Your task to perform on an android device: delete location history Image 0: 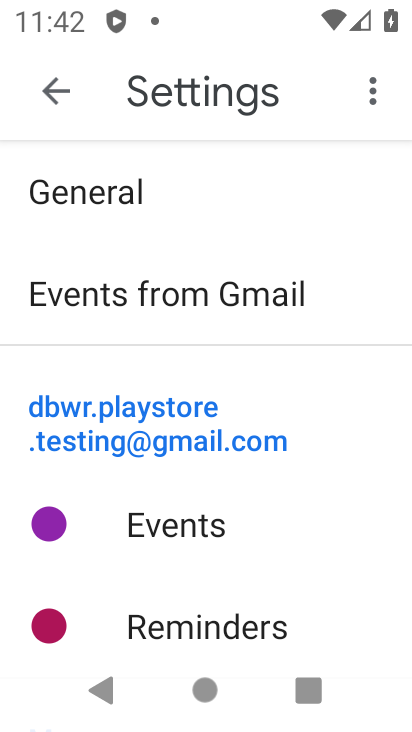
Step 0: press home button
Your task to perform on an android device: delete location history Image 1: 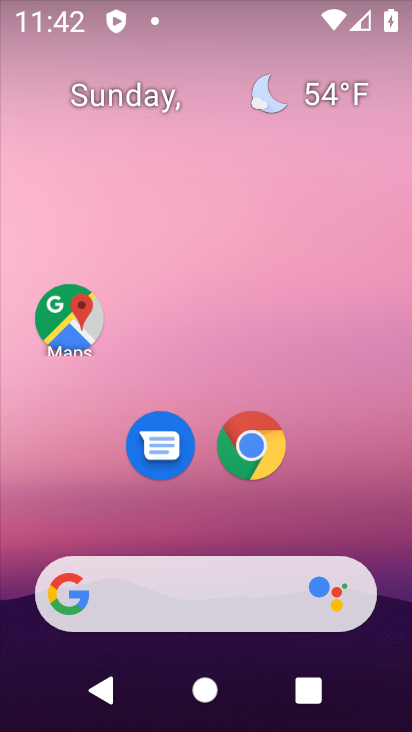
Step 1: drag from (337, 488) to (308, 110)
Your task to perform on an android device: delete location history Image 2: 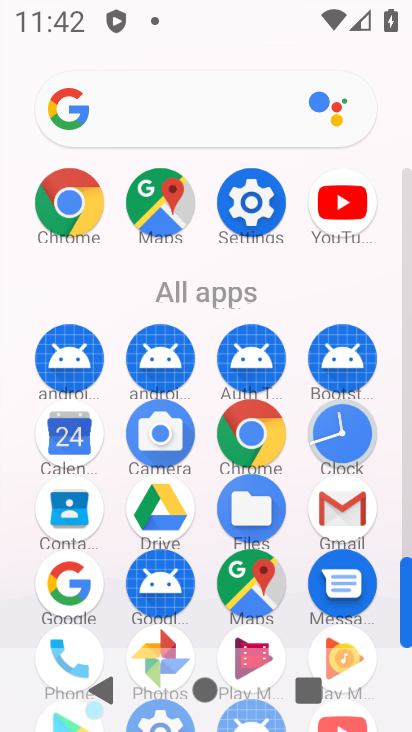
Step 2: click (256, 222)
Your task to perform on an android device: delete location history Image 3: 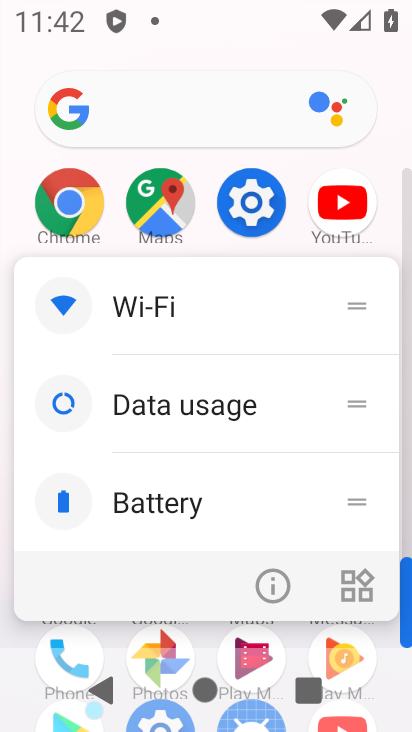
Step 3: drag from (390, 144) to (385, 57)
Your task to perform on an android device: delete location history Image 4: 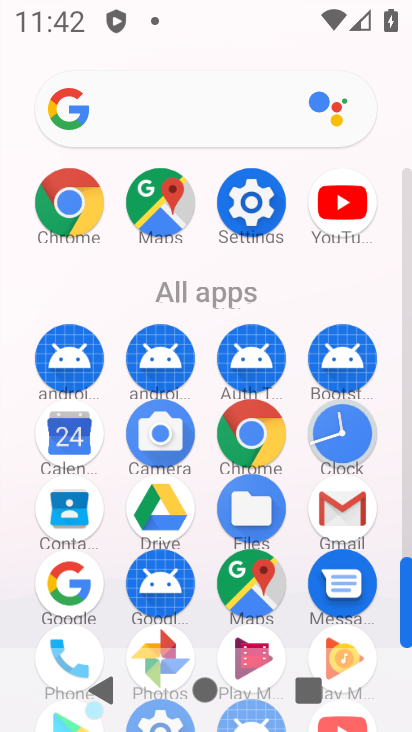
Step 4: drag from (381, 614) to (395, 232)
Your task to perform on an android device: delete location history Image 5: 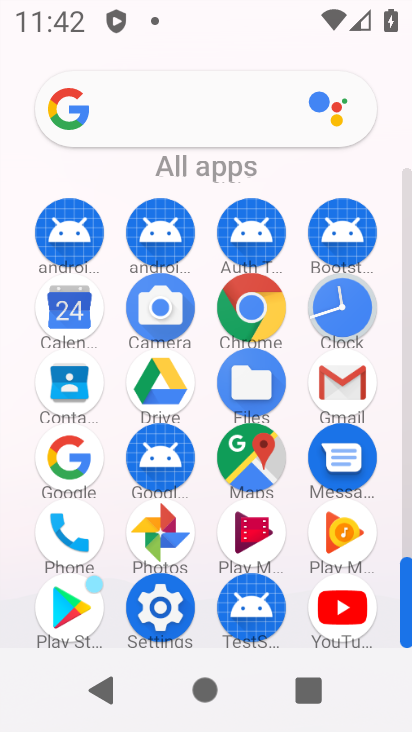
Step 5: click (166, 619)
Your task to perform on an android device: delete location history Image 6: 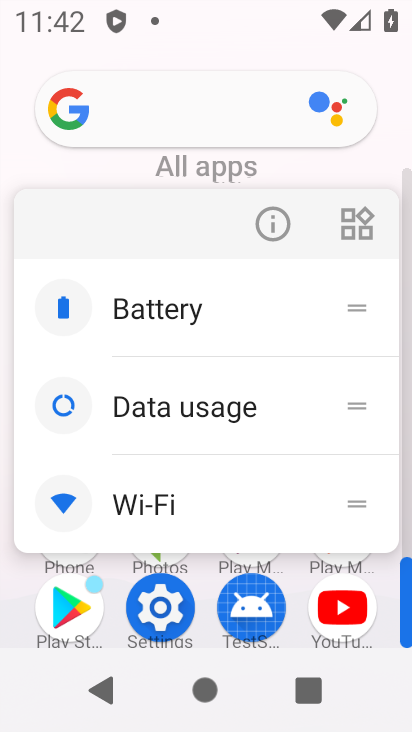
Step 6: click (171, 620)
Your task to perform on an android device: delete location history Image 7: 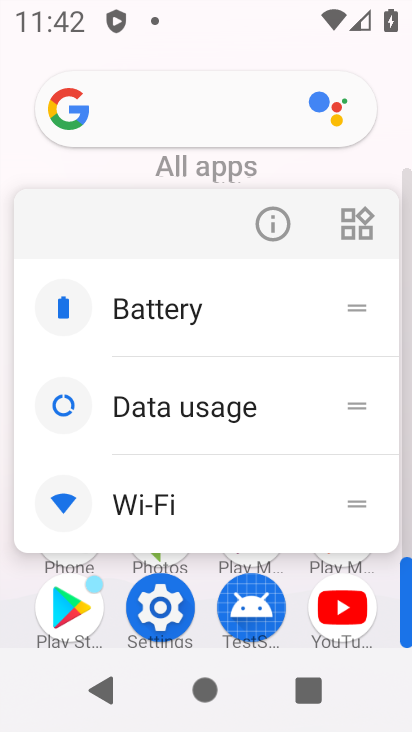
Step 7: click (181, 626)
Your task to perform on an android device: delete location history Image 8: 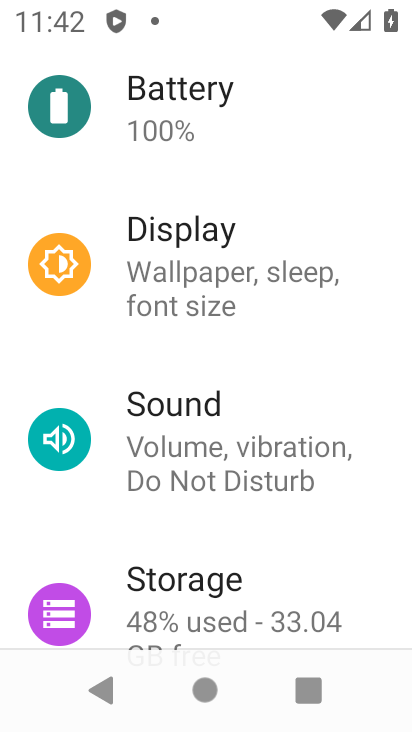
Step 8: drag from (327, 578) to (334, 172)
Your task to perform on an android device: delete location history Image 9: 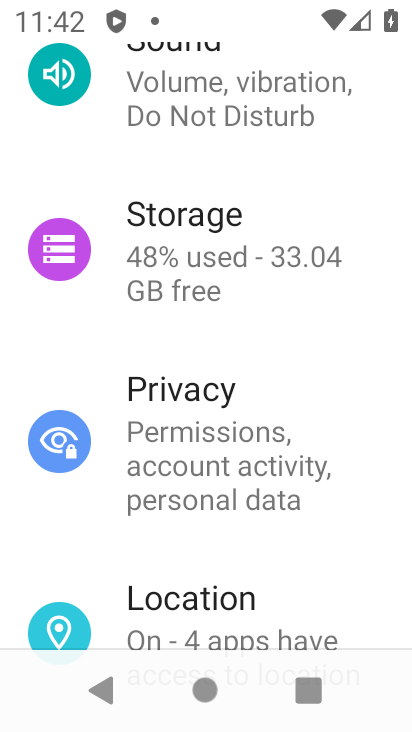
Step 9: click (245, 599)
Your task to perform on an android device: delete location history Image 10: 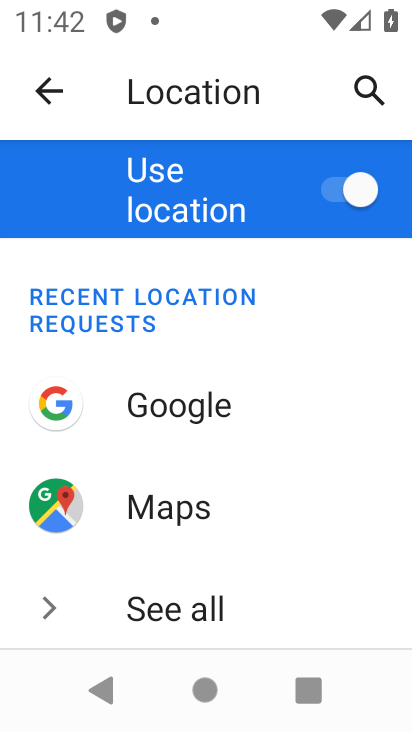
Step 10: drag from (310, 605) to (328, 293)
Your task to perform on an android device: delete location history Image 11: 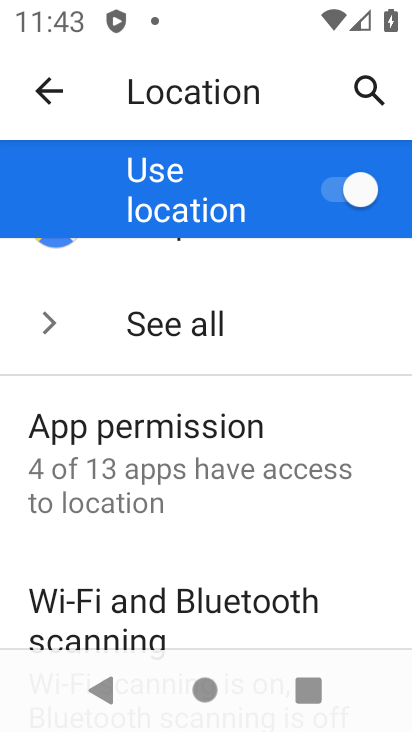
Step 11: drag from (348, 579) to (351, 343)
Your task to perform on an android device: delete location history Image 12: 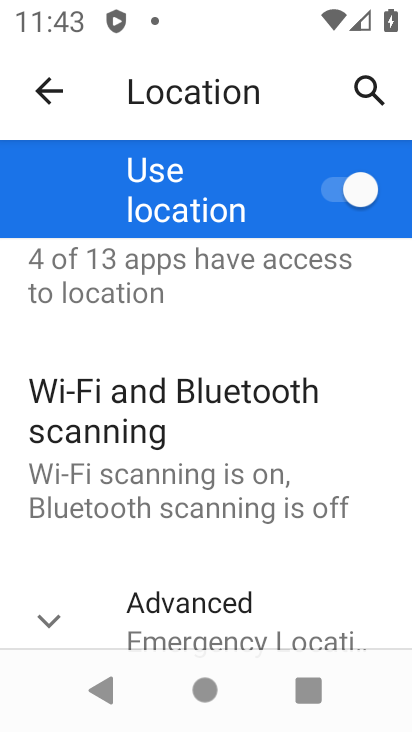
Step 12: drag from (327, 535) to (329, 337)
Your task to perform on an android device: delete location history Image 13: 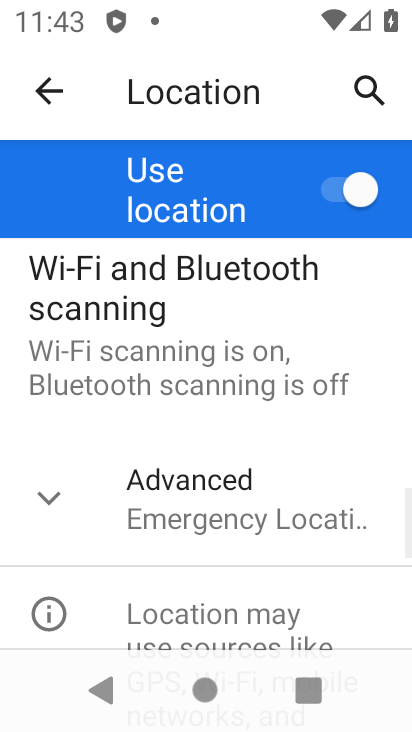
Step 13: click (252, 515)
Your task to perform on an android device: delete location history Image 14: 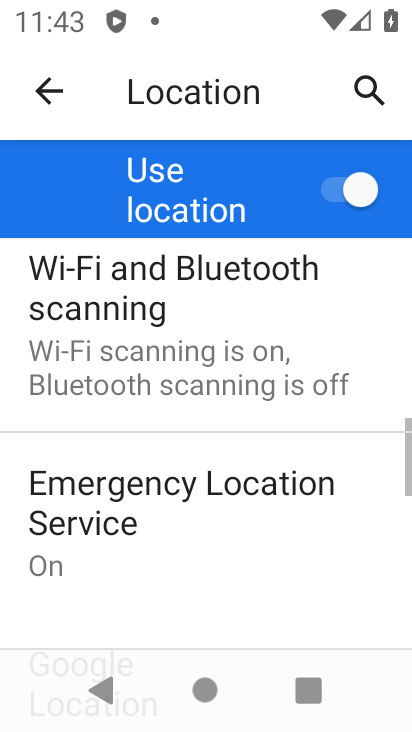
Step 14: drag from (242, 590) to (285, 334)
Your task to perform on an android device: delete location history Image 15: 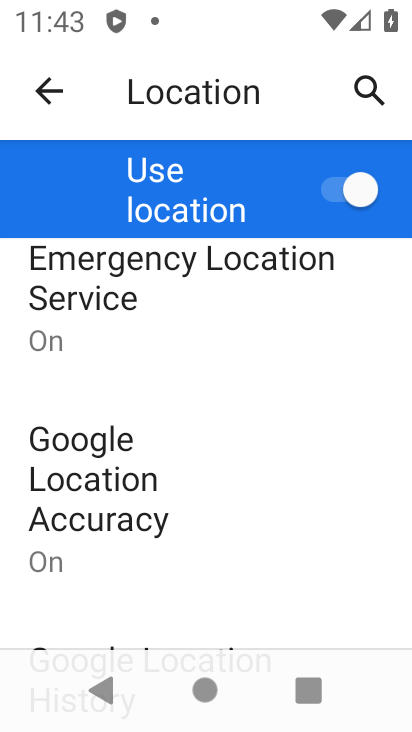
Step 15: drag from (243, 541) to (298, 307)
Your task to perform on an android device: delete location history Image 16: 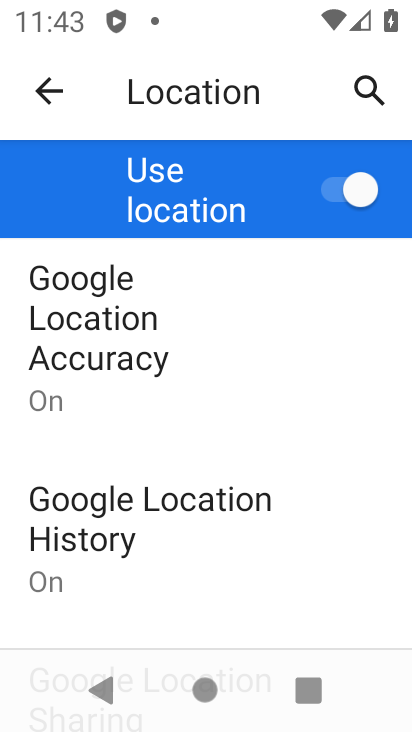
Step 16: click (174, 509)
Your task to perform on an android device: delete location history Image 17: 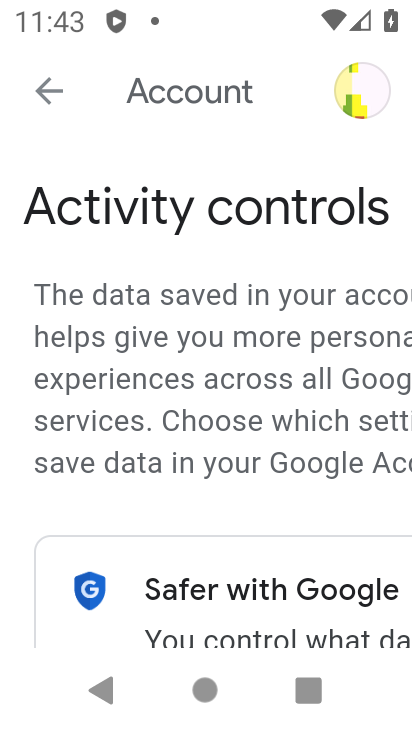
Step 17: drag from (80, 614) to (120, 190)
Your task to perform on an android device: delete location history Image 18: 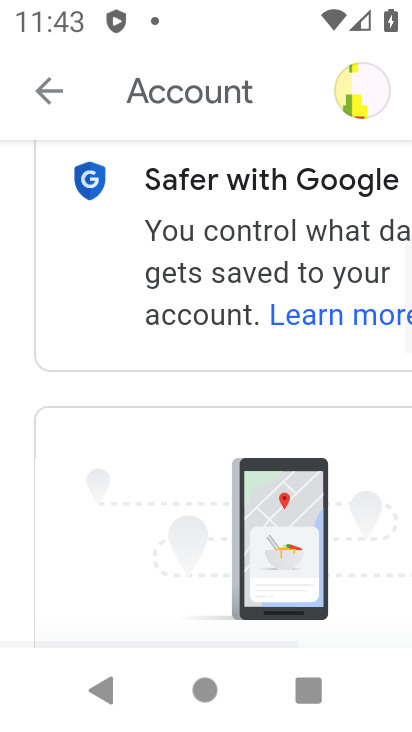
Step 18: drag from (106, 588) to (90, 222)
Your task to perform on an android device: delete location history Image 19: 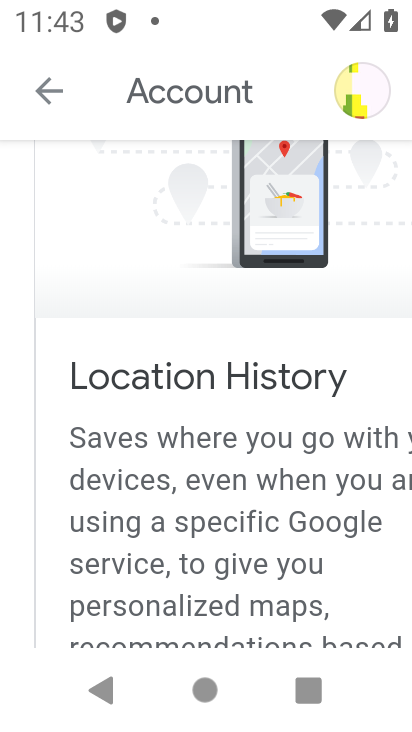
Step 19: drag from (88, 567) to (67, 141)
Your task to perform on an android device: delete location history Image 20: 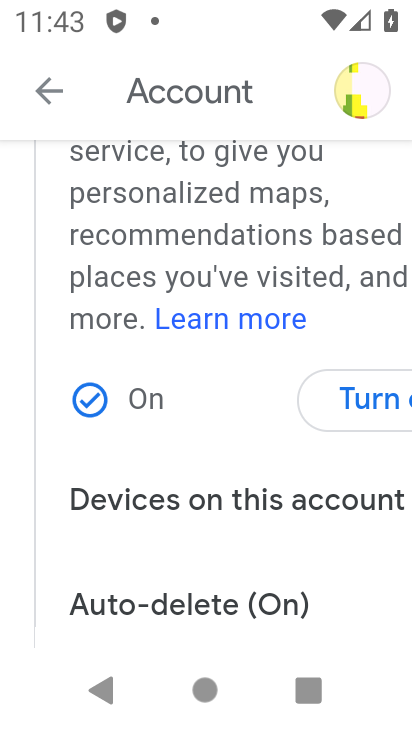
Step 20: drag from (163, 555) to (143, 152)
Your task to perform on an android device: delete location history Image 21: 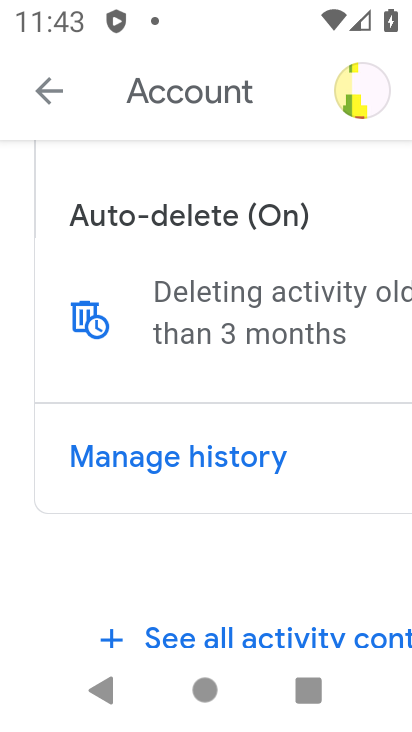
Step 21: click (163, 469)
Your task to perform on an android device: delete location history Image 22: 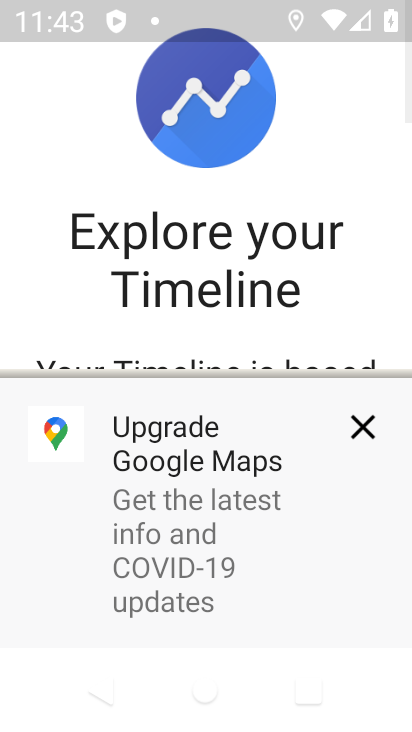
Step 22: click (365, 424)
Your task to perform on an android device: delete location history Image 23: 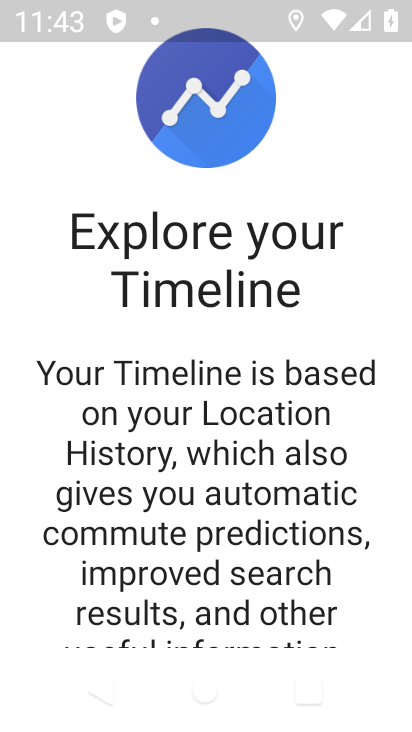
Step 23: drag from (209, 498) to (186, 128)
Your task to perform on an android device: delete location history Image 24: 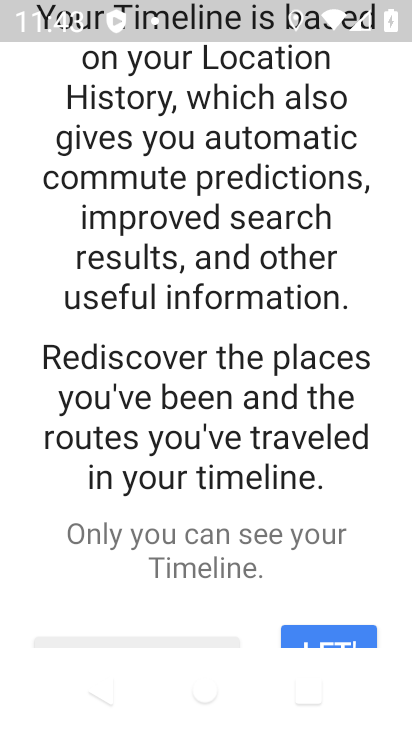
Step 24: drag from (242, 572) to (164, 241)
Your task to perform on an android device: delete location history Image 25: 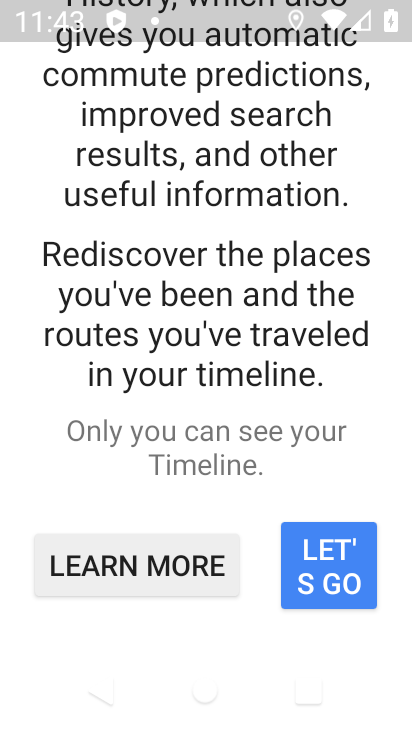
Step 25: click (309, 562)
Your task to perform on an android device: delete location history Image 26: 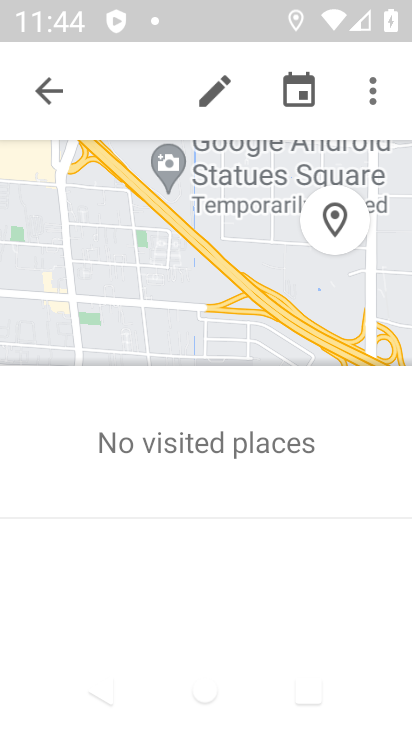
Step 26: click (379, 99)
Your task to perform on an android device: delete location history Image 27: 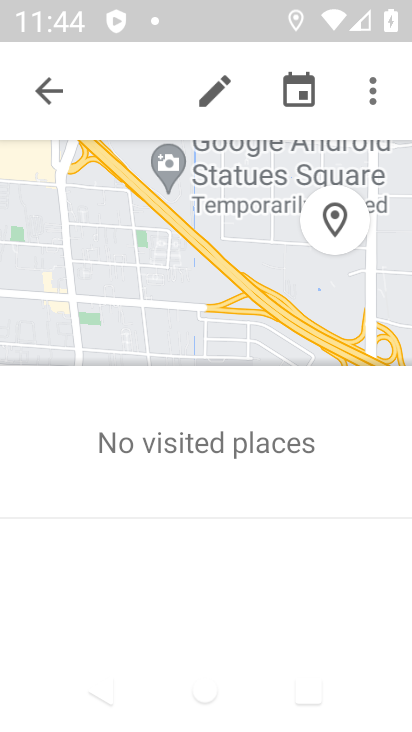
Step 27: click (368, 107)
Your task to perform on an android device: delete location history Image 28: 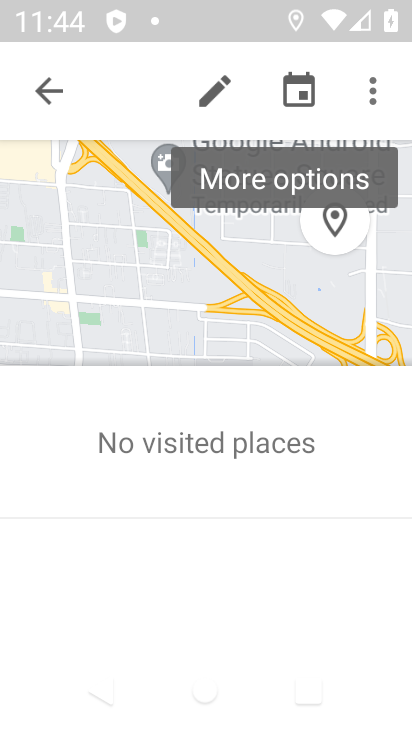
Step 28: click (377, 102)
Your task to perform on an android device: delete location history Image 29: 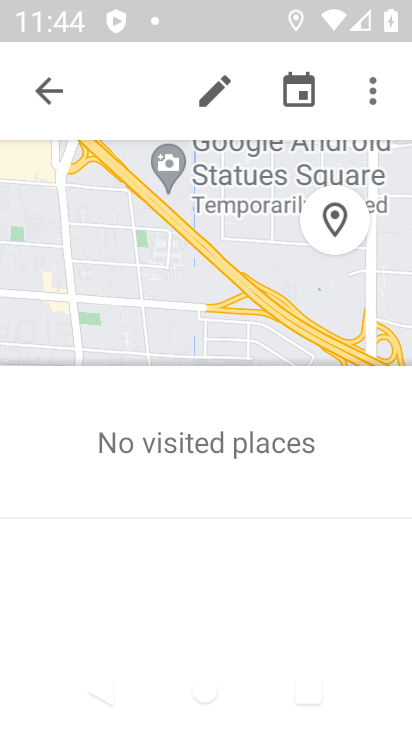
Step 29: click (334, 182)
Your task to perform on an android device: delete location history Image 30: 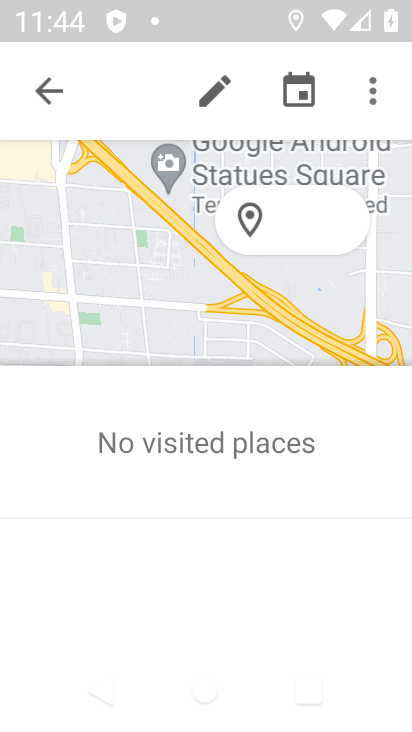
Step 30: click (373, 102)
Your task to perform on an android device: delete location history Image 31: 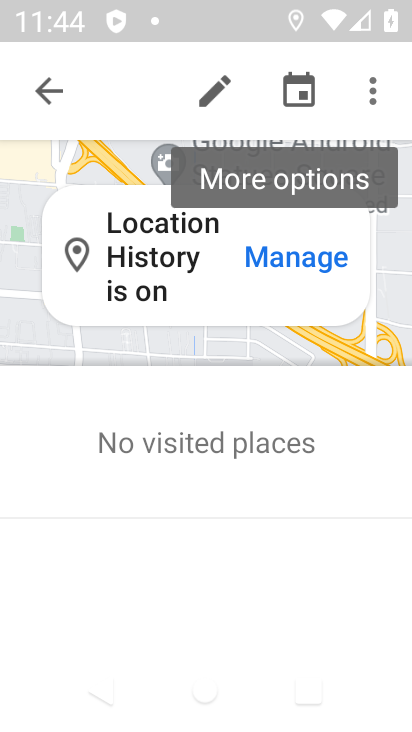
Step 31: click (373, 175)
Your task to perform on an android device: delete location history Image 32: 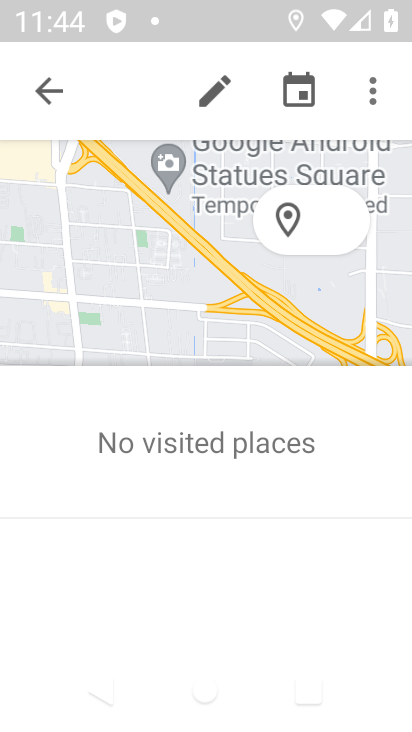
Step 32: click (374, 95)
Your task to perform on an android device: delete location history Image 33: 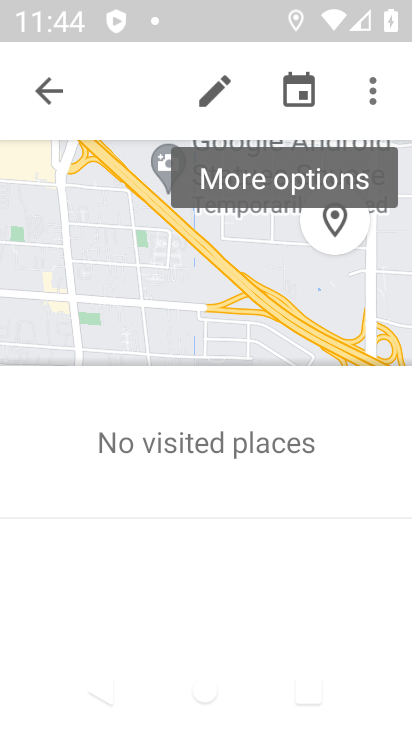
Step 33: click (377, 101)
Your task to perform on an android device: delete location history Image 34: 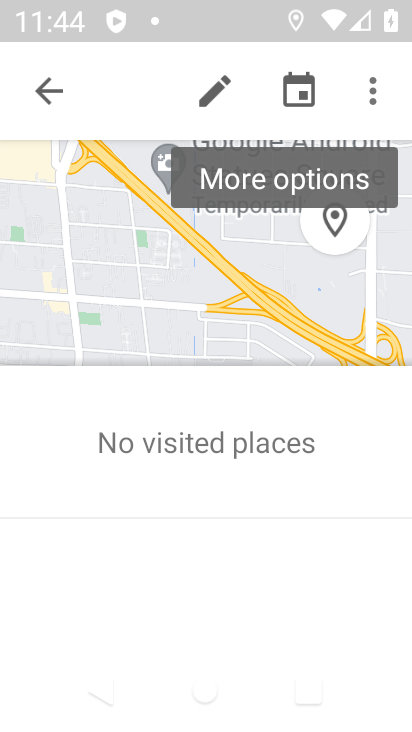
Step 34: click (379, 98)
Your task to perform on an android device: delete location history Image 35: 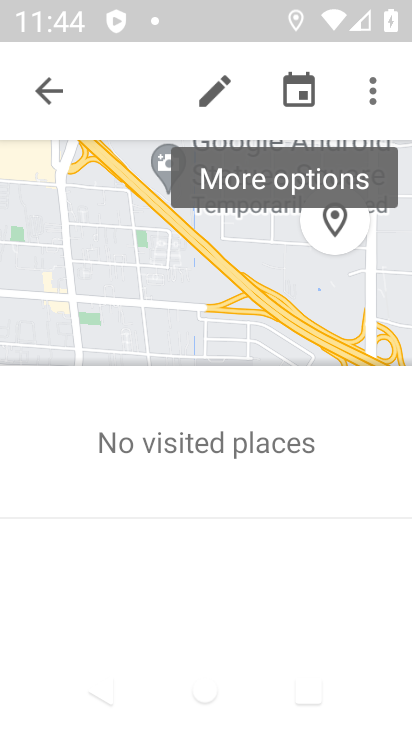
Step 35: click (382, 92)
Your task to perform on an android device: delete location history Image 36: 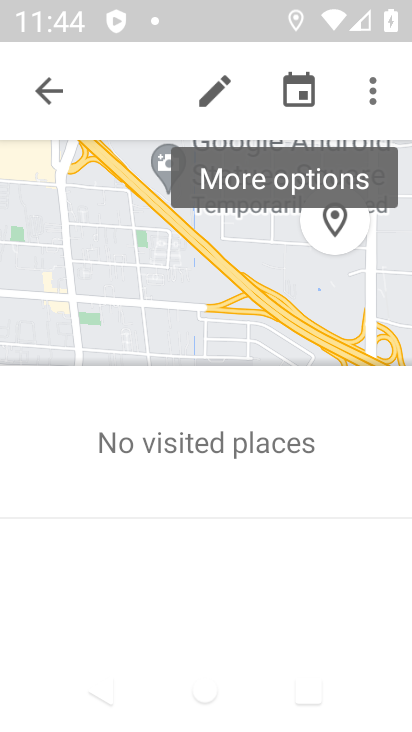
Step 36: click (378, 84)
Your task to perform on an android device: delete location history Image 37: 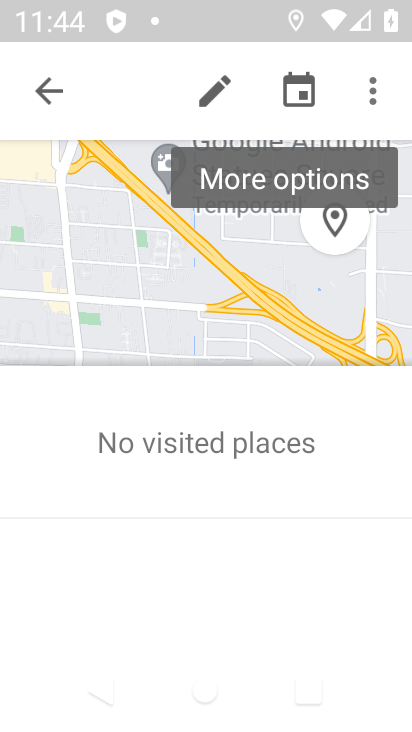
Step 37: click (380, 76)
Your task to perform on an android device: delete location history Image 38: 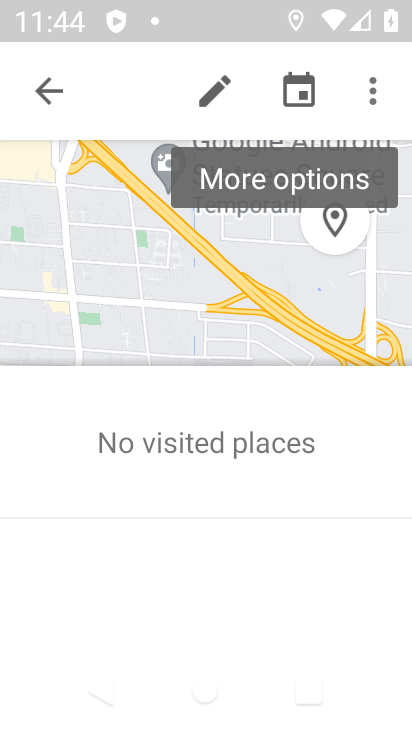
Step 38: task complete